Your task to perform on an android device: Go to wifi settings Image 0: 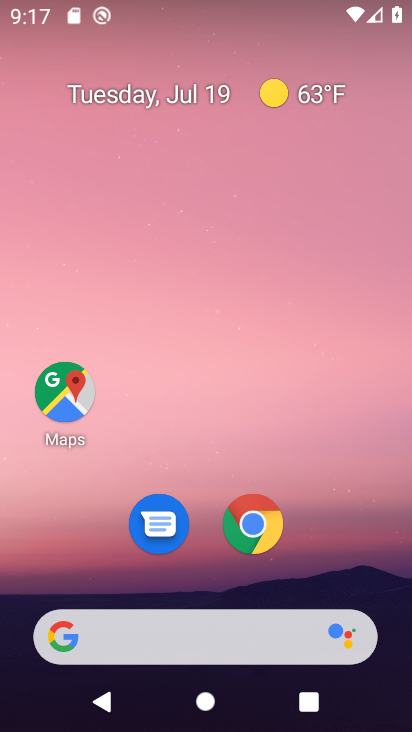
Step 0: press home button
Your task to perform on an android device: Go to wifi settings Image 1: 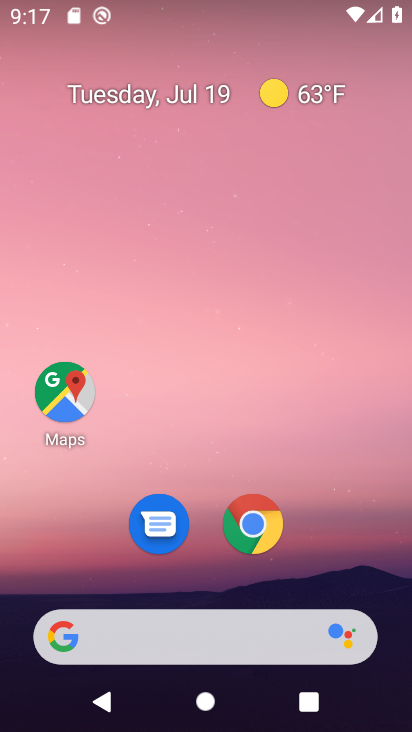
Step 1: drag from (195, 642) to (349, 110)
Your task to perform on an android device: Go to wifi settings Image 2: 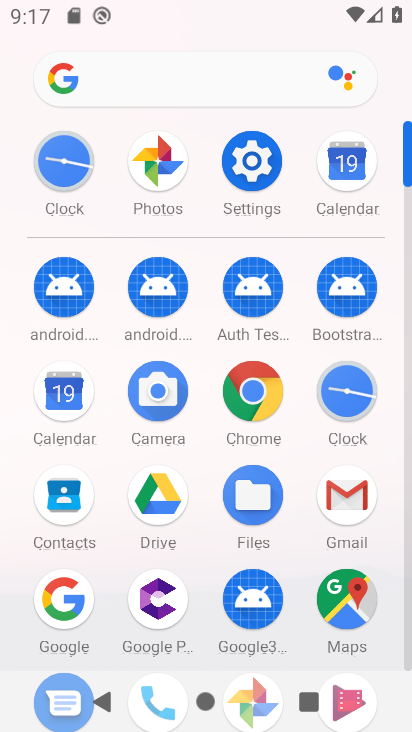
Step 2: click (267, 163)
Your task to perform on an android device: Go to wifi settings Image 3: 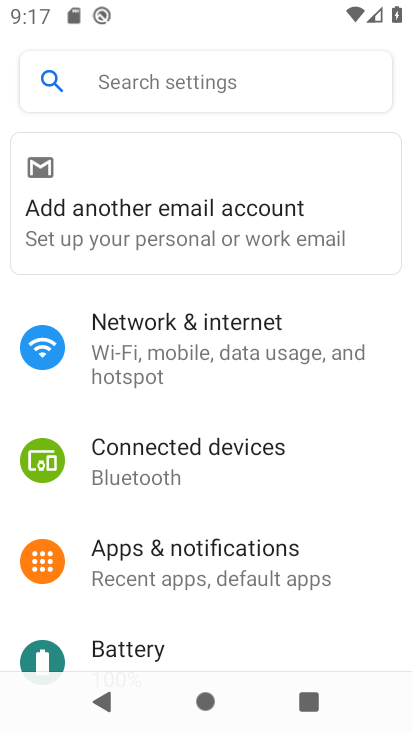
Step 3: click (236, 346)
Your task to perform on an android device: Go to wifi settings Image 4: 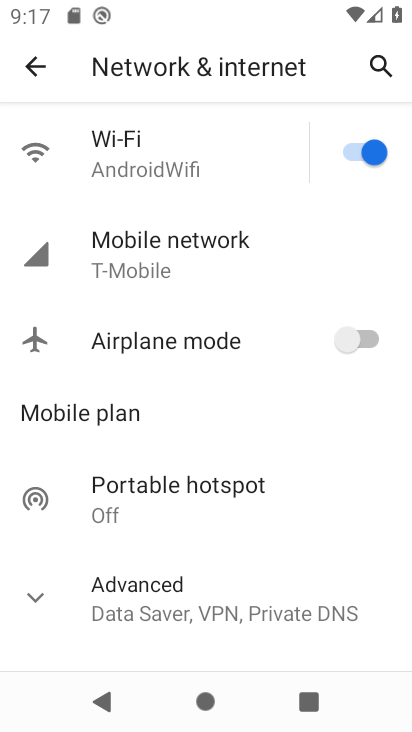
Step 4: click (117, 175)
Your task to perform on an android device: Go to wifi settings Image 5: 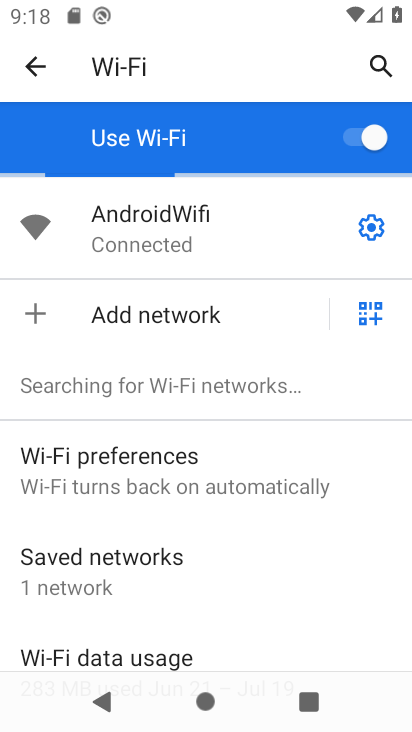
Step 5: task complete